Your task to perform on an android device: change notification settings in the gmail app Image 0: 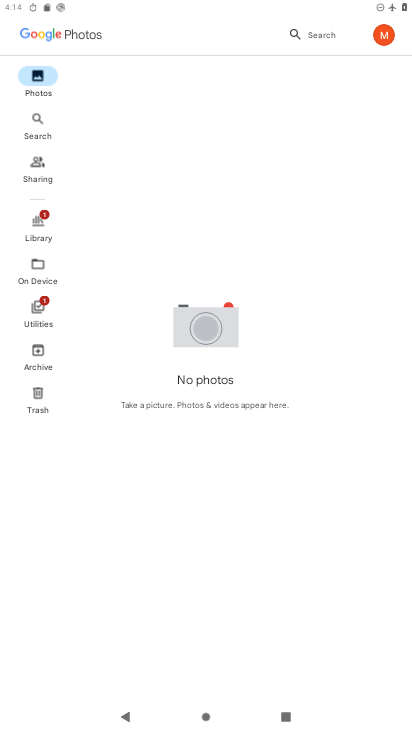
Step 0: press home button
Your task to perform on an android device: change notification settings in the gmail app Image 1: 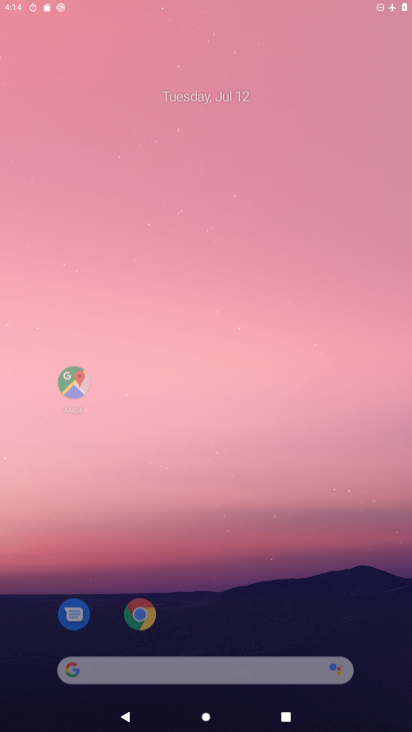
Step 1: drag from (168, 672) to (126, 147)
Your task to perform on an android device: change notification settings in the gmail app Image 2: 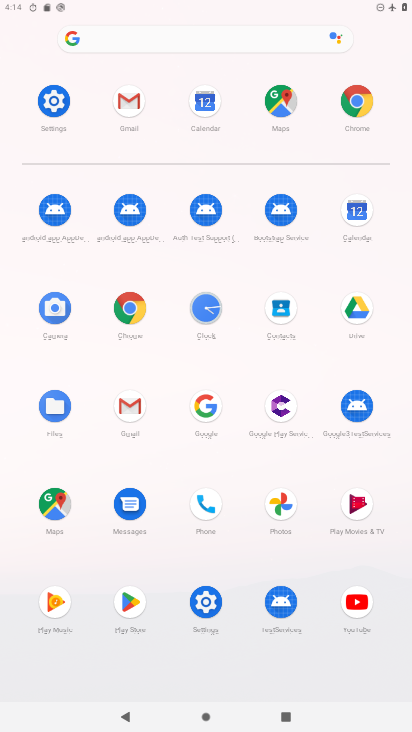
Step 2: click (135, 397)
Your task to perform on an android device: change notification settings in the gmail app Image 3: 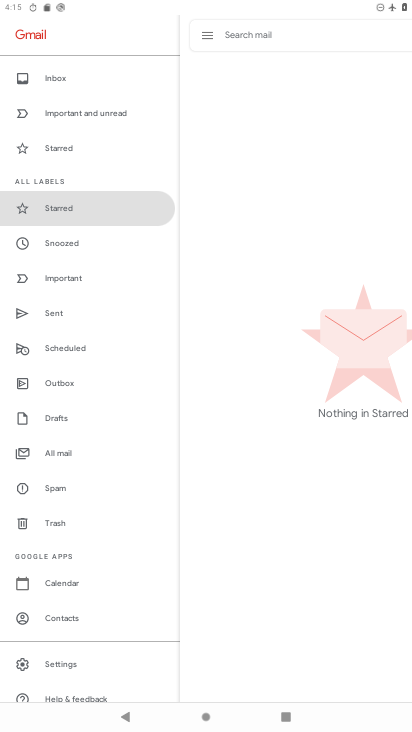
Step 3: press home button
Your task to perform on an android device: change notification settings in the gmail app Image 4: 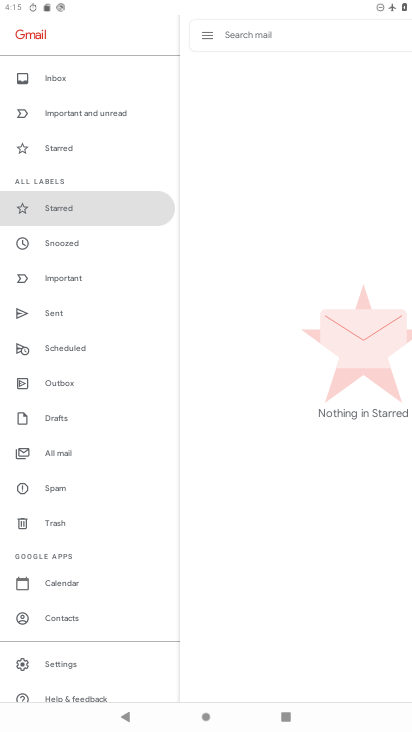
Step 4: press home button
Your task to perform on an android device: change notification settings in the gmail app Image 5: 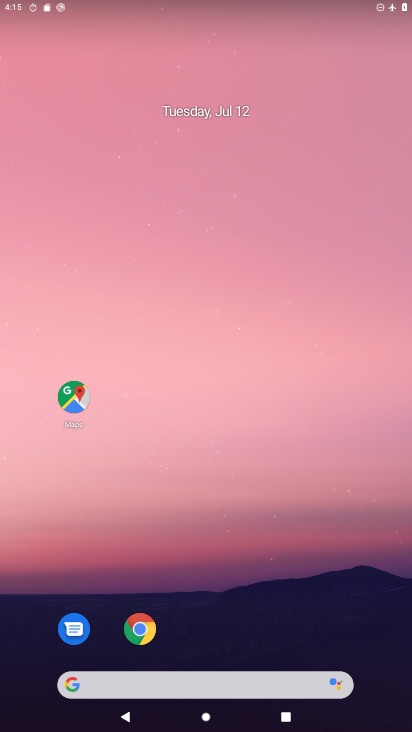
Step 5: drag from (204, 561) to (248, 33)
Your task to perform on an android device: change notification settings in the gmail app Image 6: 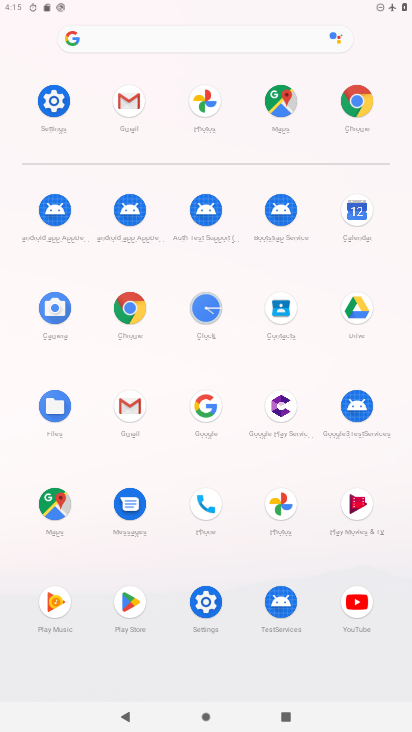
Step 6: click (136, 414)
Your task to perform on an android device: change notification settings in the gmail app Image 7: 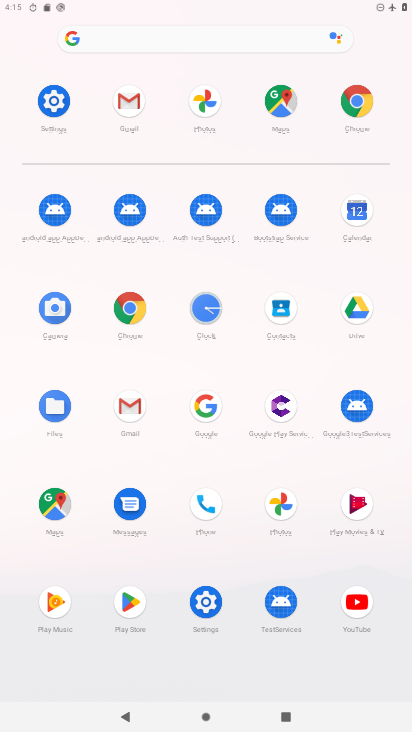
Step 7: click (136, 414)
Your task to perform on an android device: change notification settings in the gmail app Image 8: 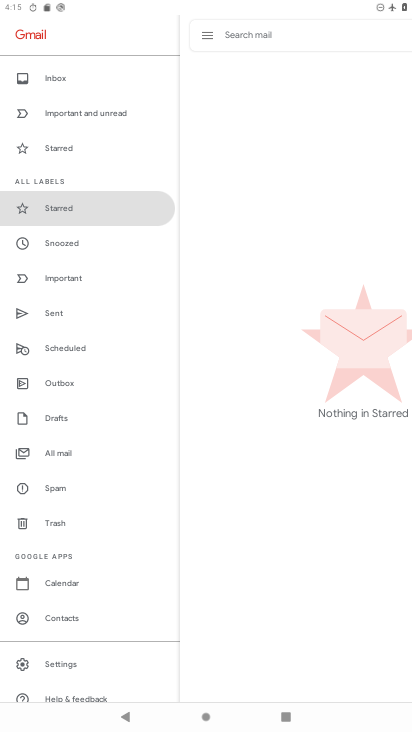
Step 8: press home button
Your task to perform on an android device: change notification settings in the gmail app Image 9: 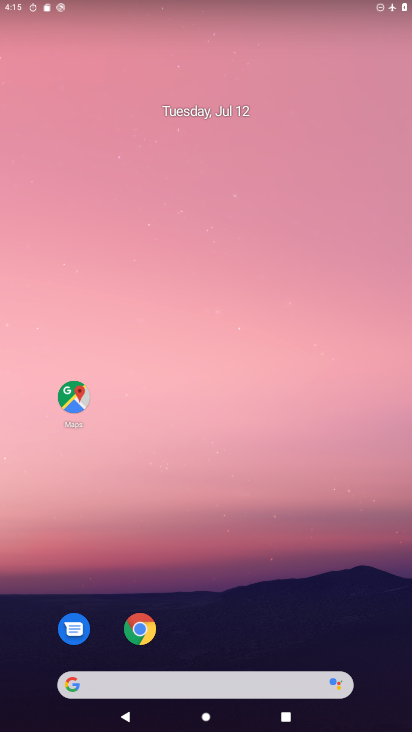
Step 9: drag from (158, 569) to (164, 435)
Your task to perform on an android device: change notification settings in the gmail app Image 10: 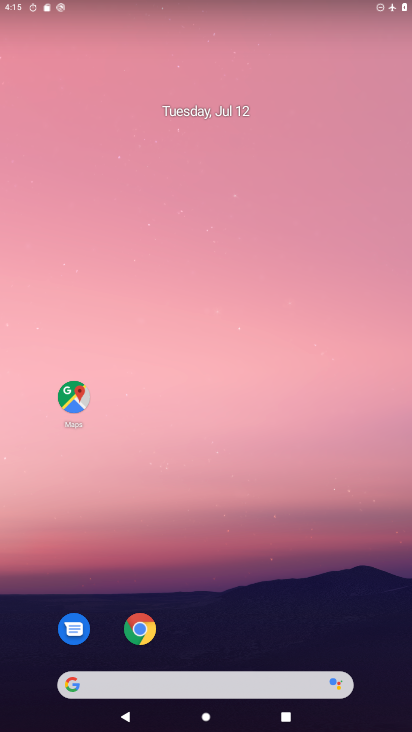
Step 10: drag from (168, 577) to (287, 5)
Your task to perform on an android device: change notification settings in the gmail app Image 11: 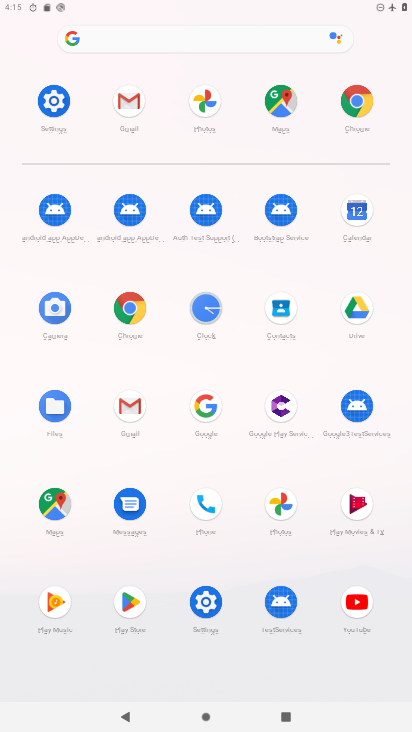
Step 11: click (128, 394)
Your task to perform on an android device: change notification settings in the gmail app Image 12: 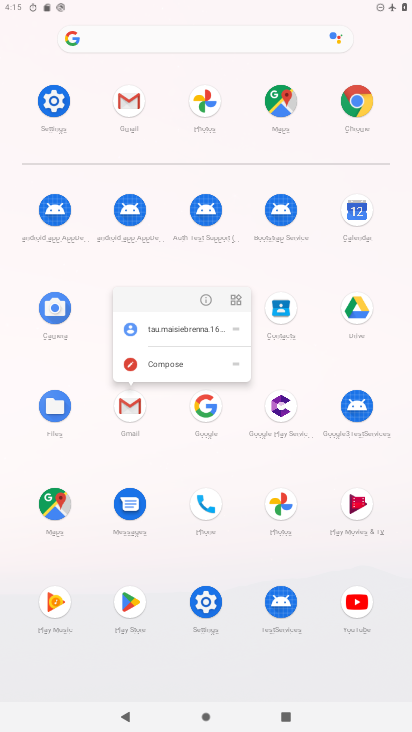
Step 12: click (205, 311)
Your task to perform on an android device: change notification settings in the gmail app Image 13: 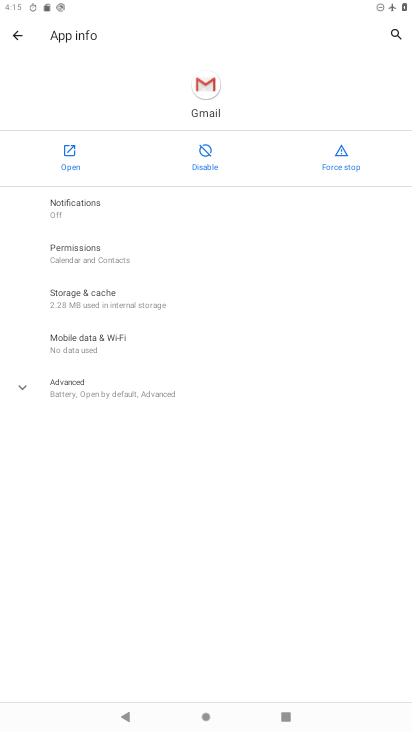
Step 13: click (110, 214)
Your task to perform on an android device: change notification settings in the gmail app Image 14: 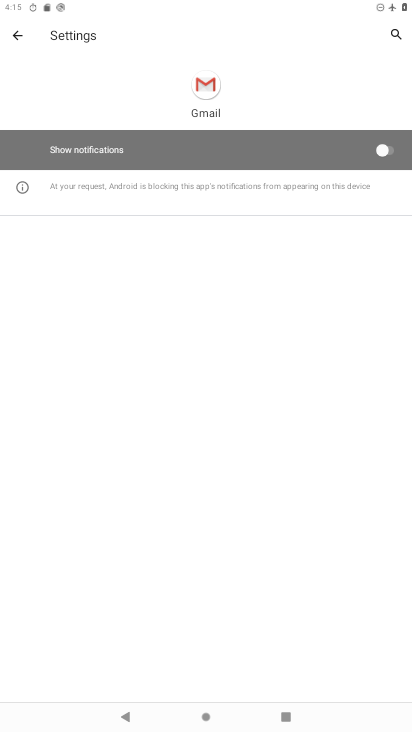
Step 14: click (85, 157)
Your task to perform on an android device: change notification settings in the gmail app Image 15: 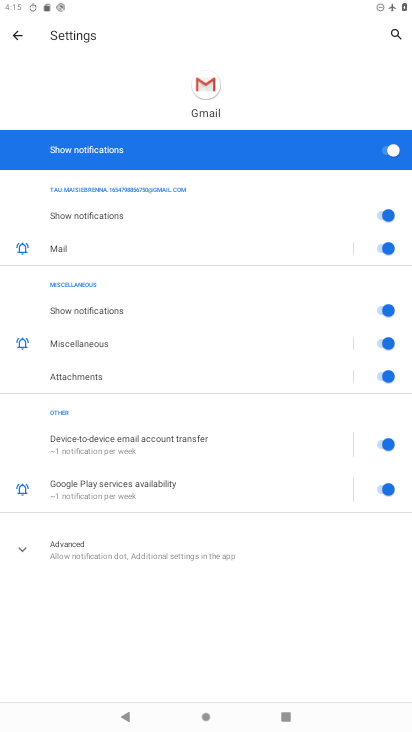
Step 15: task complete